Your task to perform on an android device: open the mobile data screen to see how much data has been used Image 0: 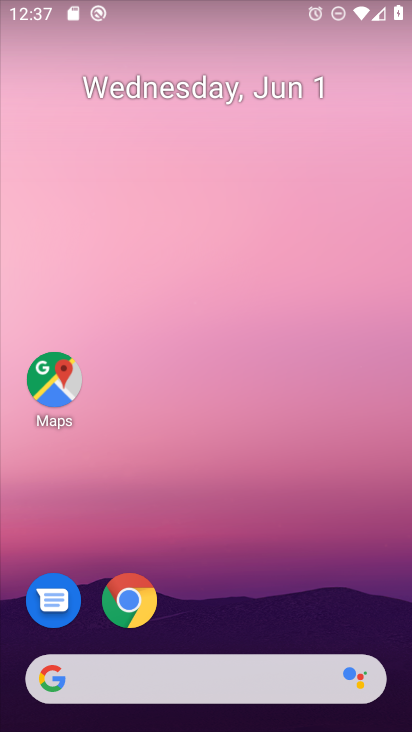
Step 0: drag from (231, 624) to (231, 180)
Your task to perform on an android device: open the mobile data screen to see how much data has been used Image 1: 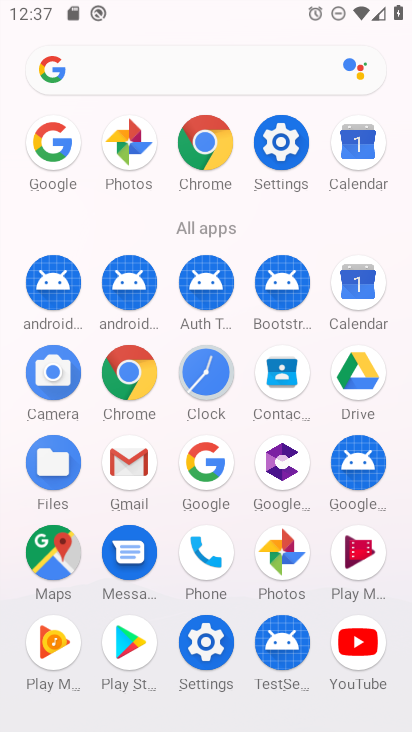
Step 1: click (285, 139)
Your task to perform on an android device: open the mobile data screen to see how much data has been used Image 2: 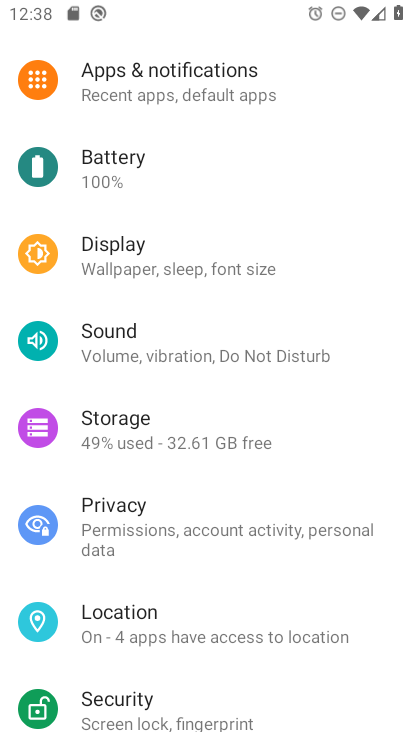
Step 2: drag from (198, 89) to (214, 729)
Your task to perform on an android device: open the mobile data screen to see how much data has been used Image 3: 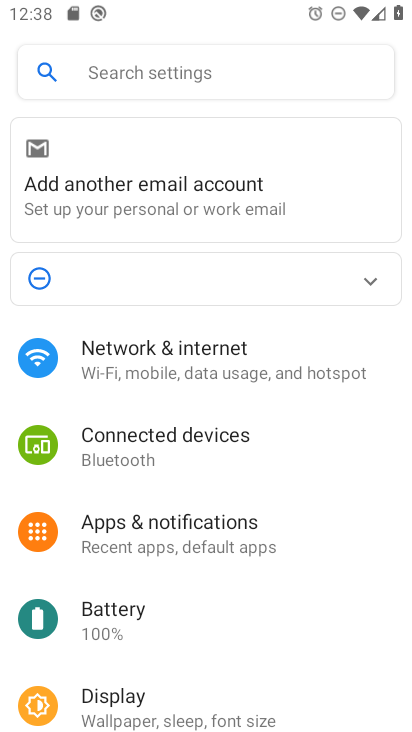
Step 3: click (248, 355)
Your task to perform on an android device: open the mobile data screen to see how much data has been used Image 4: 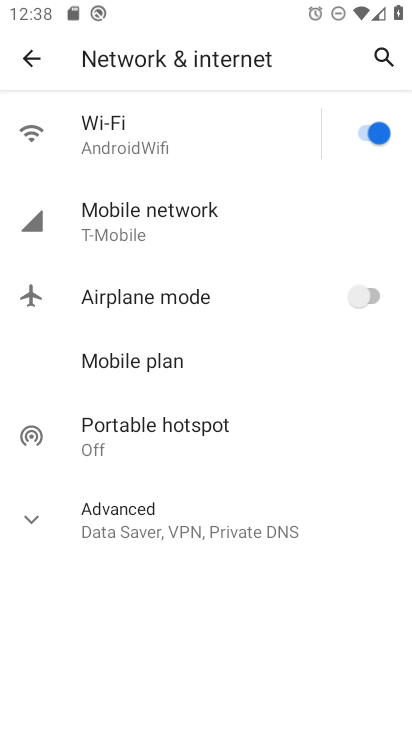
Step 4: click (157, 224)
Your task to perform on an android device: open the mobile data screen to see how much data has been used Image 5: 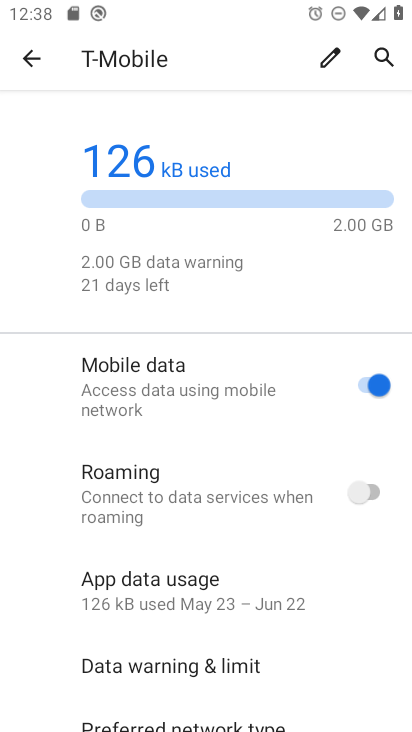
Step 5: click (227, 588)
Your task to perform on an android device: open the mobile data screen to see how much data has been used Image 6: 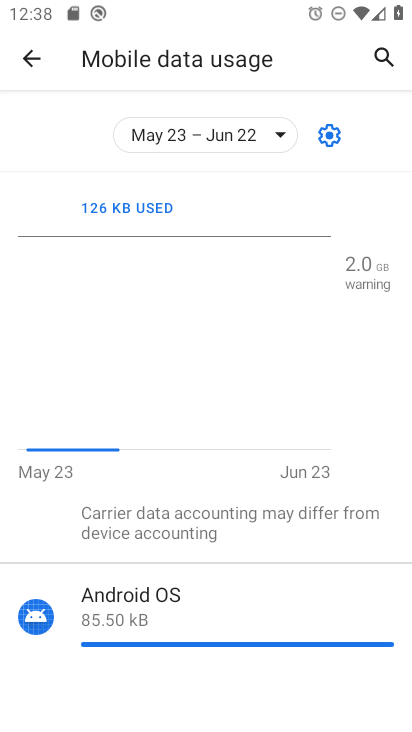
Step 6: task complete